Your task to perform on an android device: Go to network settings Image 0: 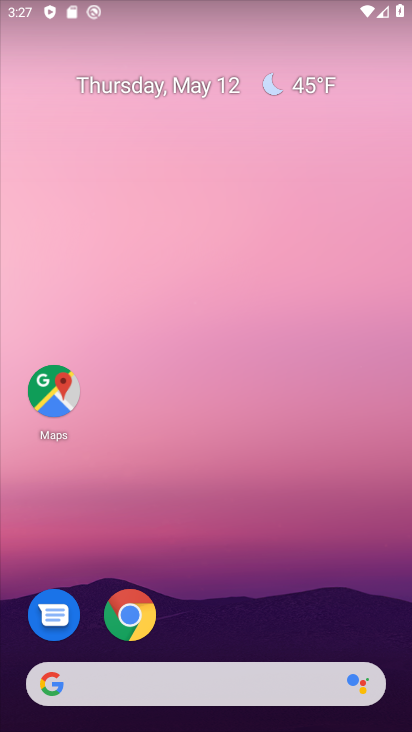
Step 0: click (336, 4)
Your task to perform on an android device: Go to network settings Image 1: 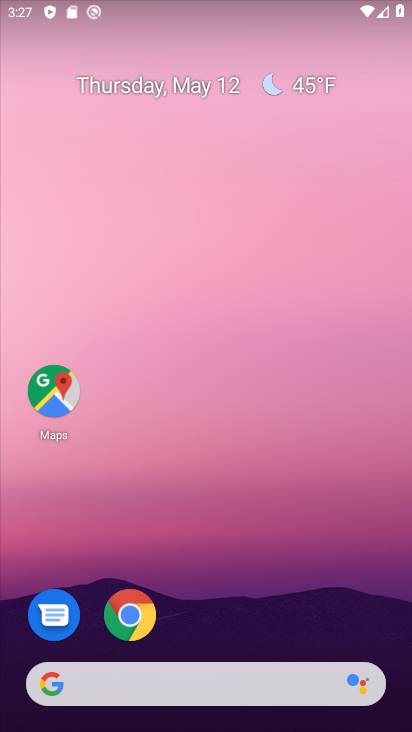
Step 1: drag from (251, 491) to (241, 6)
Your task to perform on an android device: Go to network settings Image 2: 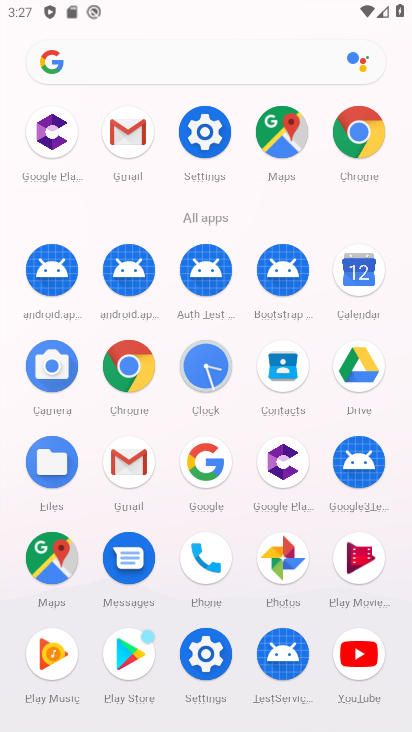
Step 2: click (204, 129)
Your task to perform on an android device: Go to network settings Image 3: 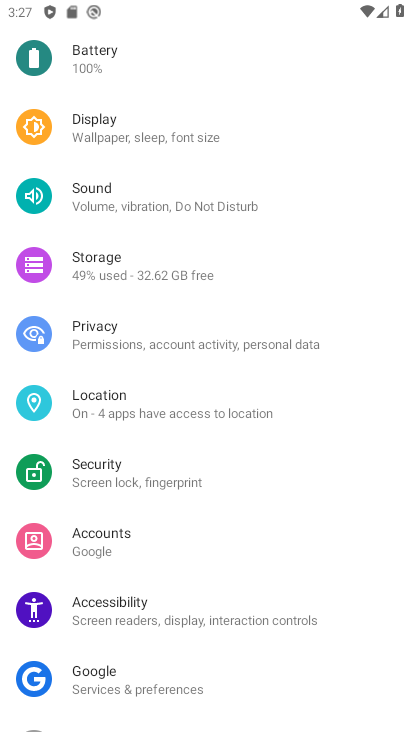
Step 3: drag from (120, 587) to (101, 267)
Your task to perform on an android device: Go to network settings Image 4: 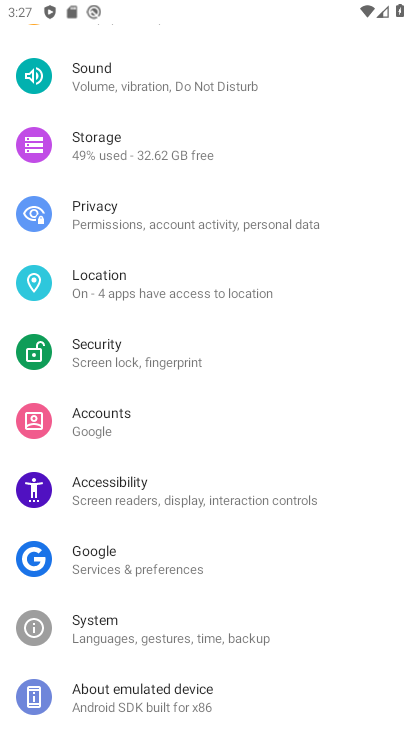
Step 4: drag from (125, 142) to (116, 513)
Your task to perform on an android device: Go to network settings Image 5: 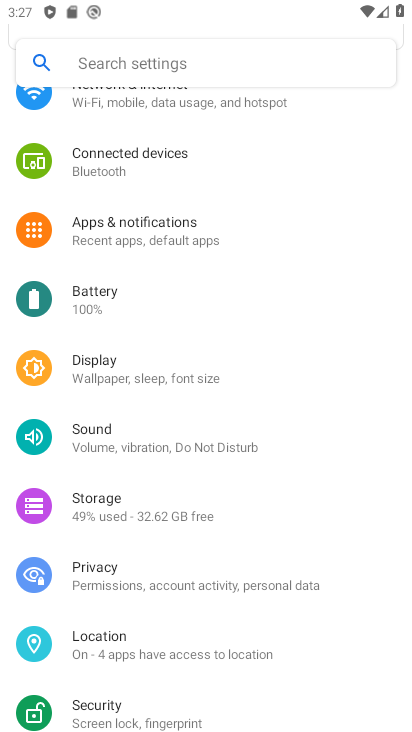
Step 5: click (120, 95)
Your task to perform on an android device: Go to network settings Image 6: 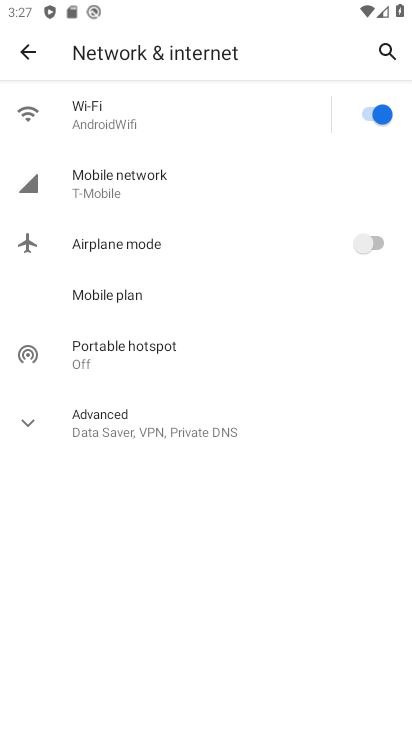
Step 6: task complete